Your task to perform on an android device: toggle notification dots Image 0: 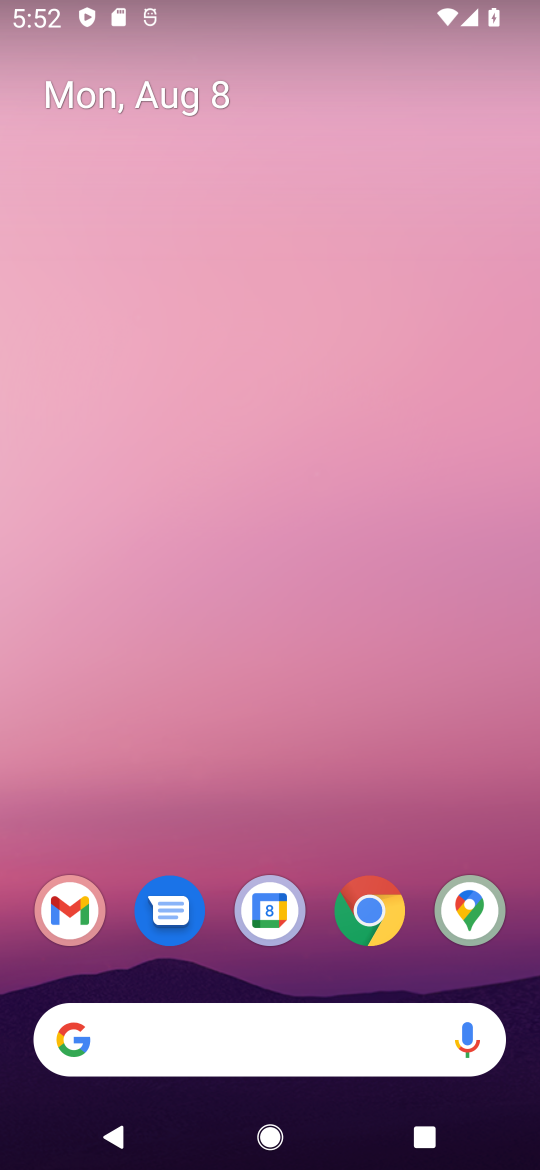
Step 0: drag from (215, 1062) to (247, 210)
Your task to perform on an android device: toggle notification dots Image 1: 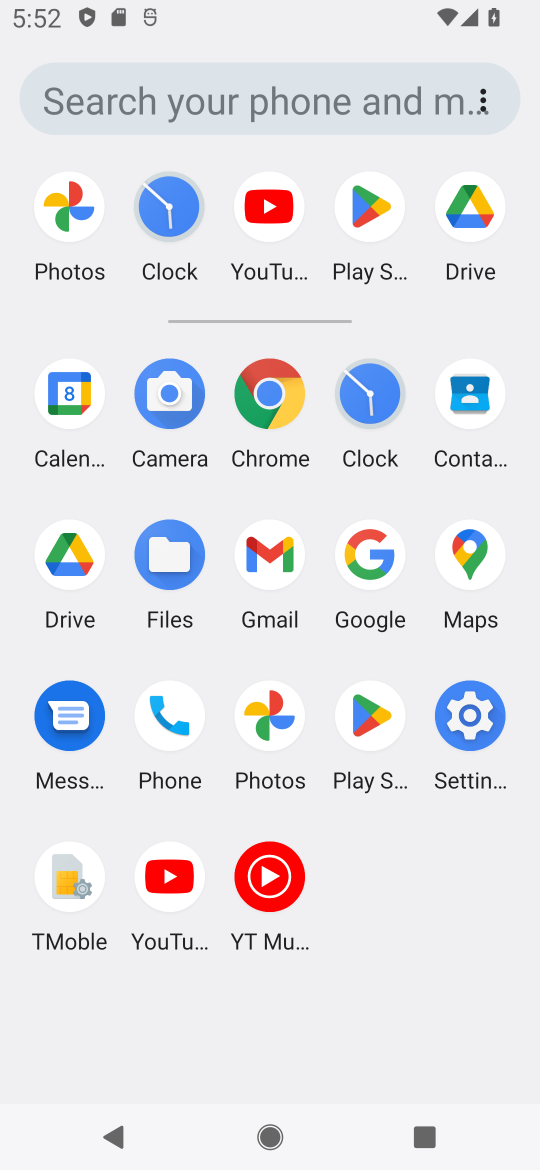
Step 1: click (470, 714)
Your task to perform on an android device: toggle notification dots Image 2: 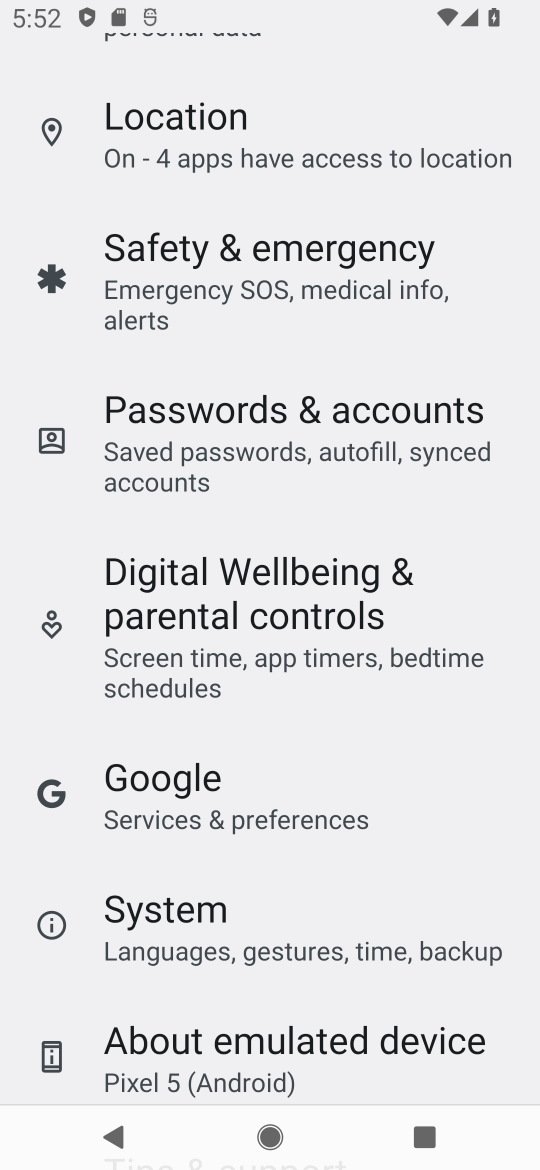
Step 2: drag from (377, 509) to (385, 630)
Your task to perform on an android device: toggle notification dots Image 3: 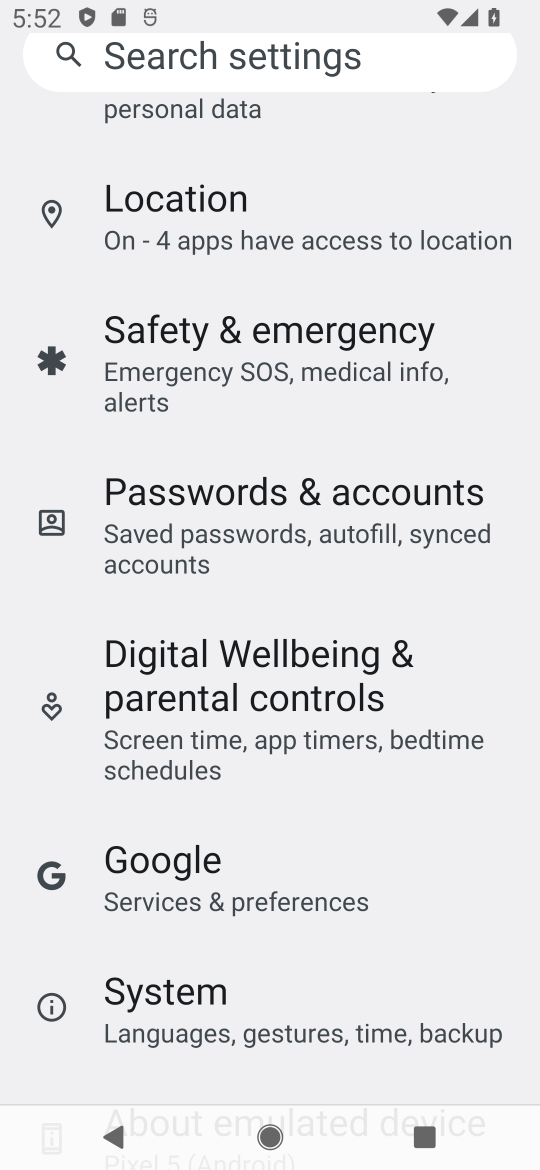
Step 3: drag from (362, 435) to (386, 601)
Your task to perform on an android device: toggle notification dots Image 4: 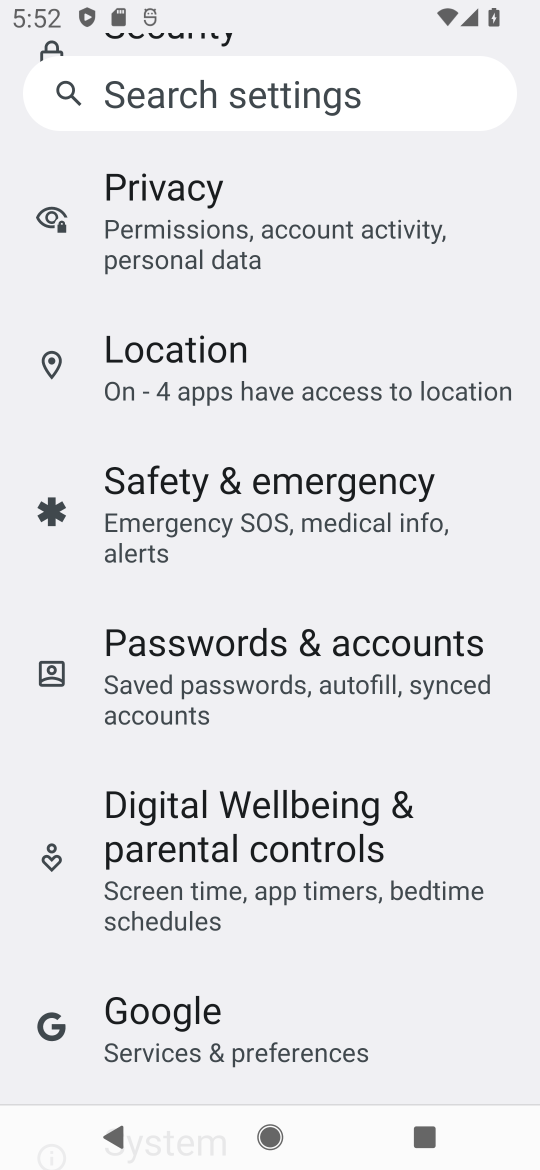
Step 4: drag from (329, 425) to (388, 621)
Your task to perform on an android device: toggle notification dots Image 5: 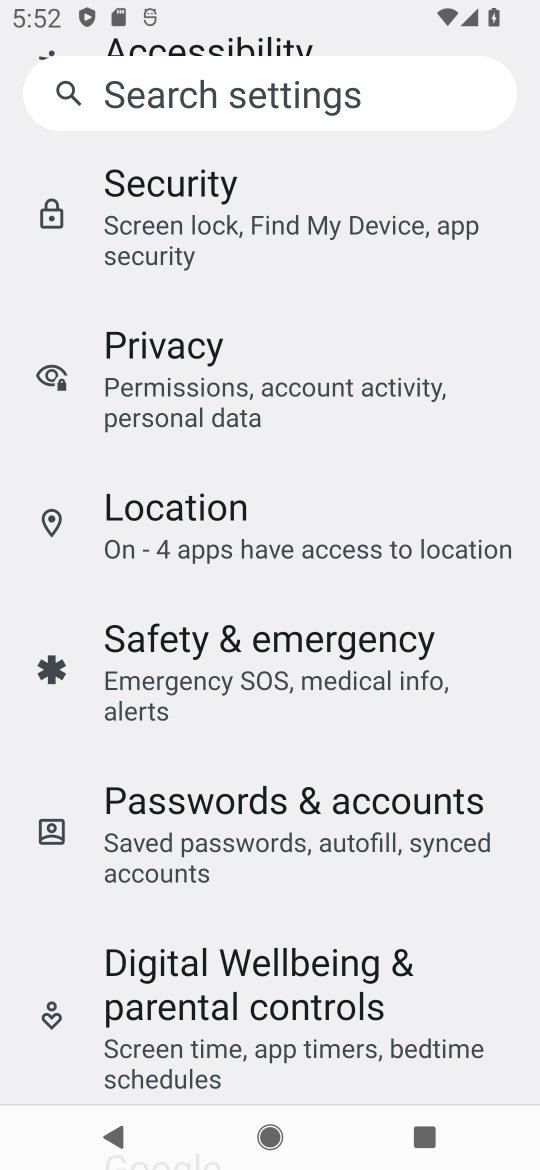
Step 5: drag from (262, 463) to (316, 703)
Your task to perform on an android device: toggle notification dots Image 6: 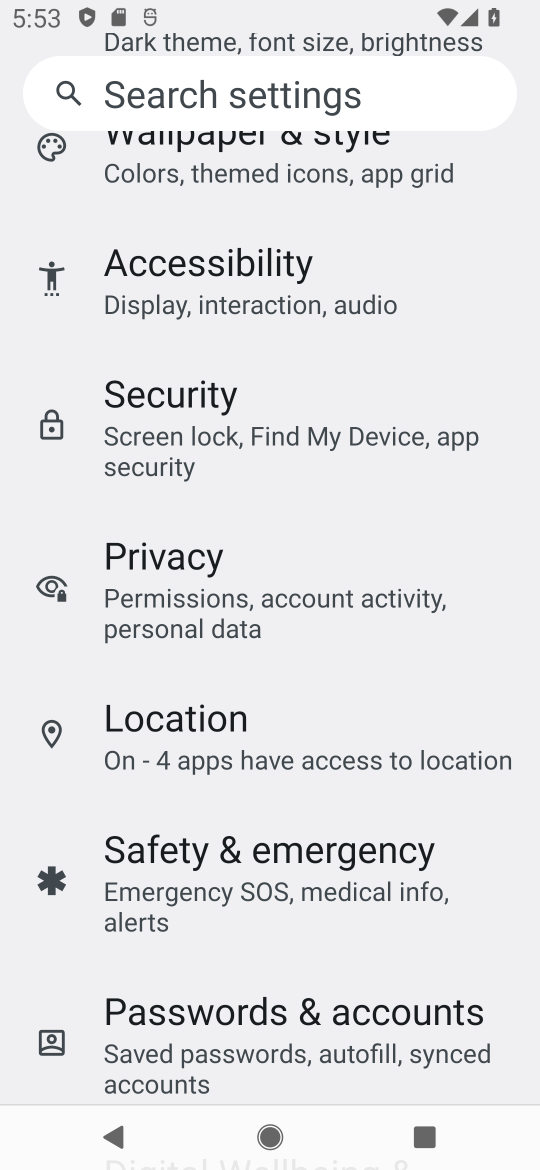
Step 6: drag from (250, 498) to (314, 681)
Your task to perform on an android device: toggle notification dots Image 7: 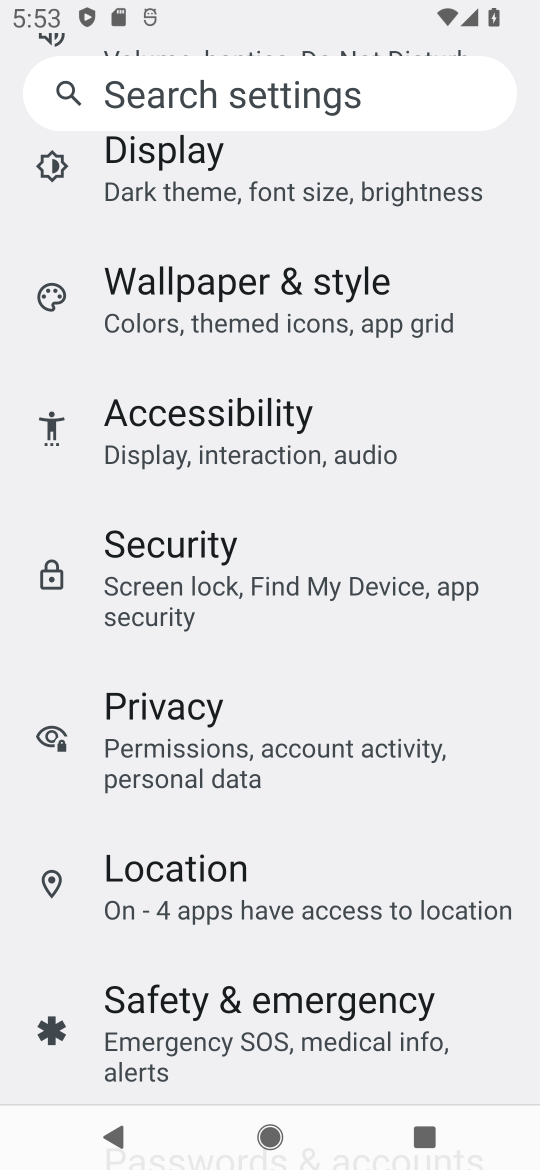
Step 7: drag from (274, 512) to (344, 708)
Your task to perform on an android device: toggle notification dots Image 8: 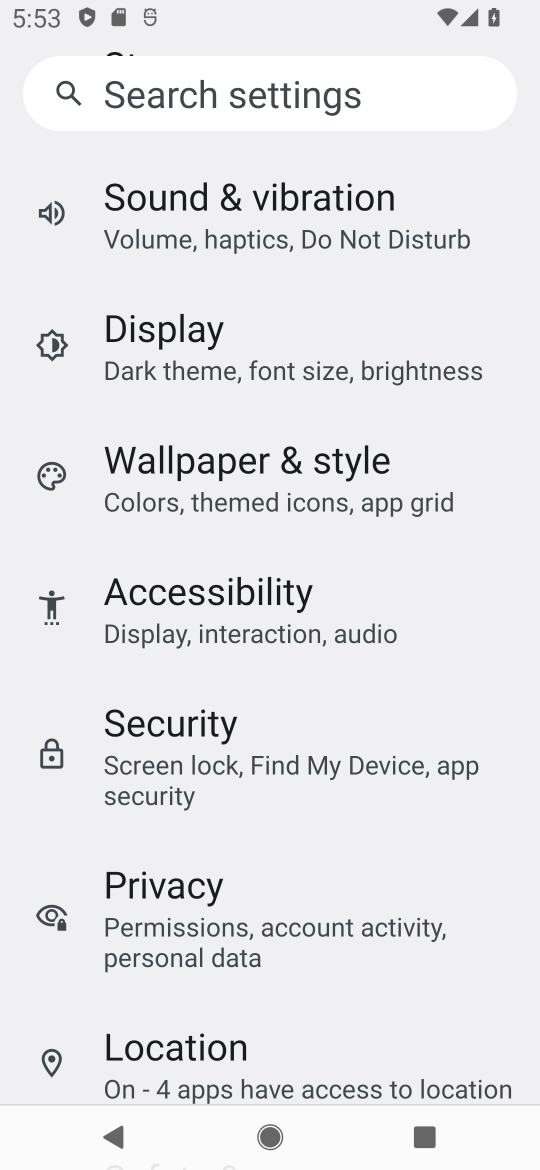
Step 8: drag from (270, 534) to (325, 741)
Your task to perform on an android device: toggle notification dots Image 9: 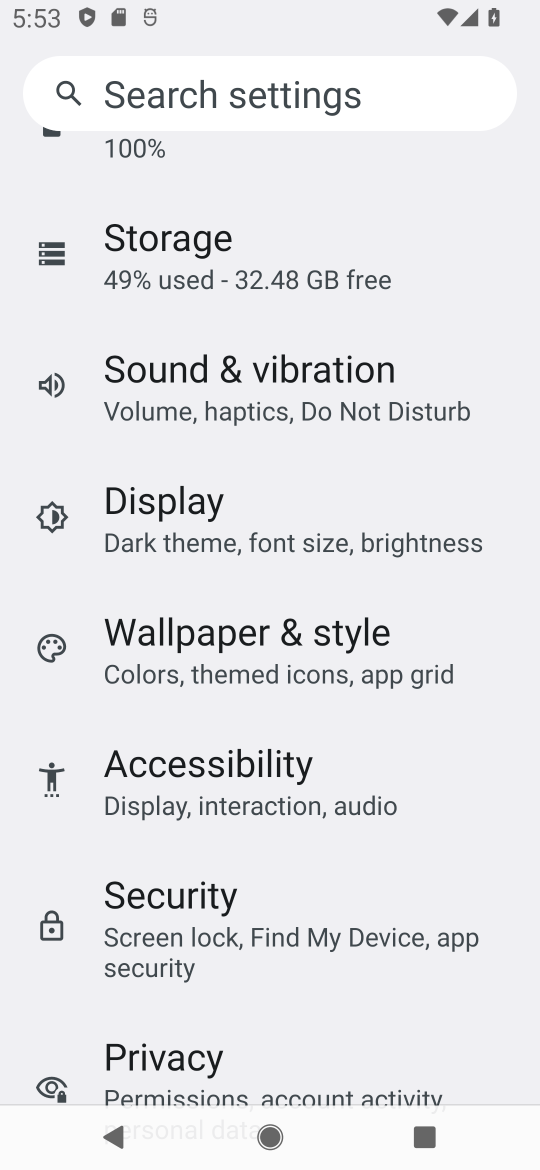
Step 9: drag from (277, 473) to (336, 708)
Your task to perform on an android device: toggle notification dots Image 10: 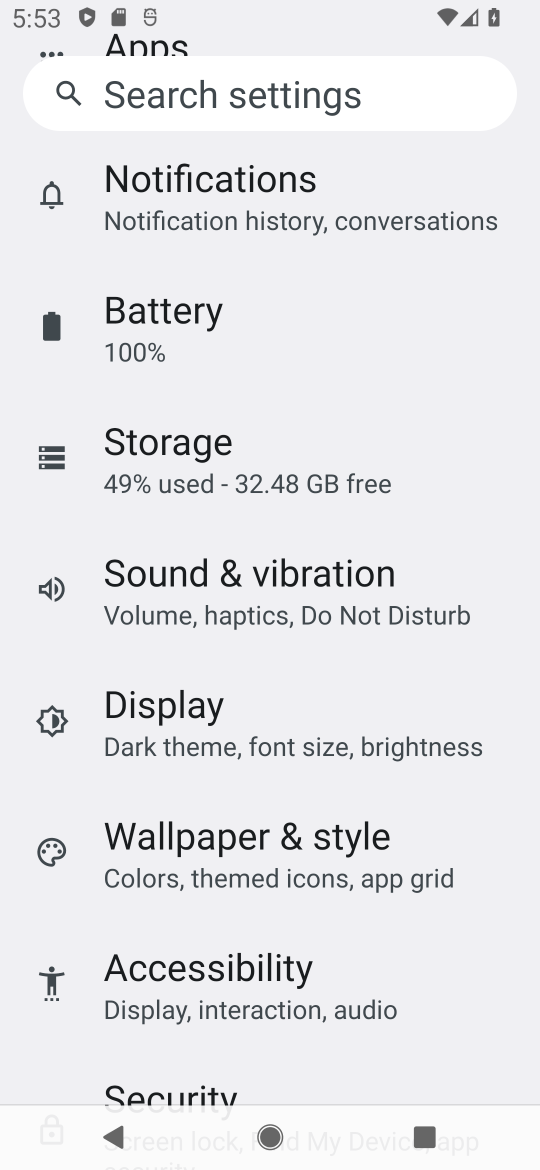
Step 10: drag from (246, 386) to (329, 585)
Your task to perform on an android device: toggle notification dots Image 11: 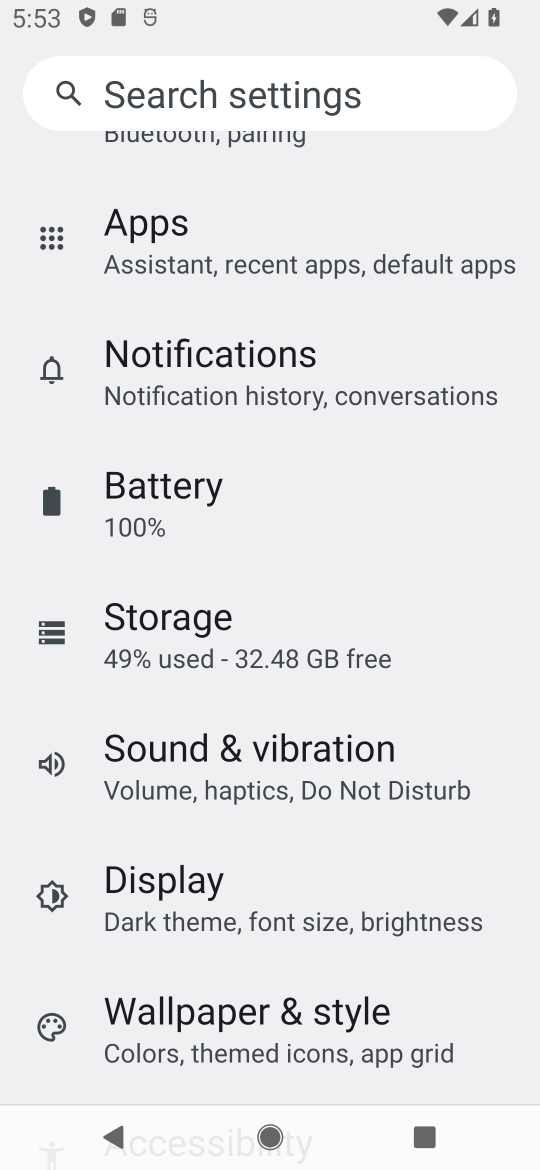
Step 11: click (237, 370)
Your task to perform on an android device: toggle notification dots Image 12: 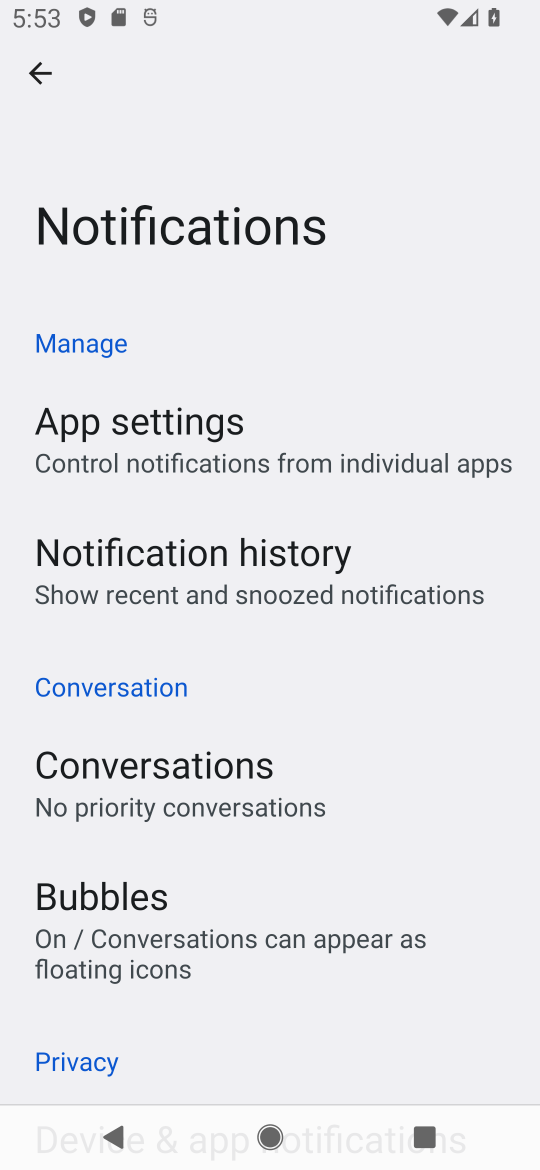
Step 12: drag from (193, 848) to (245, 678)
Your task to perform on an android device: toggle notification dots Image 13: 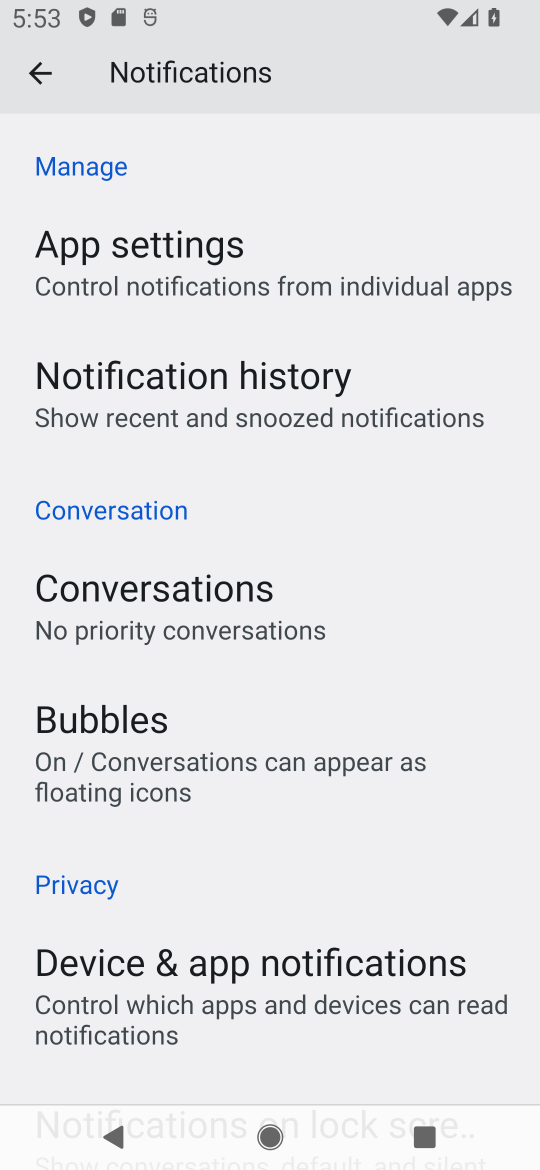
Step 13: drag from (205, 930) to (283, 777)
Your task to perform on an android device: toggle notification dots Image 14: 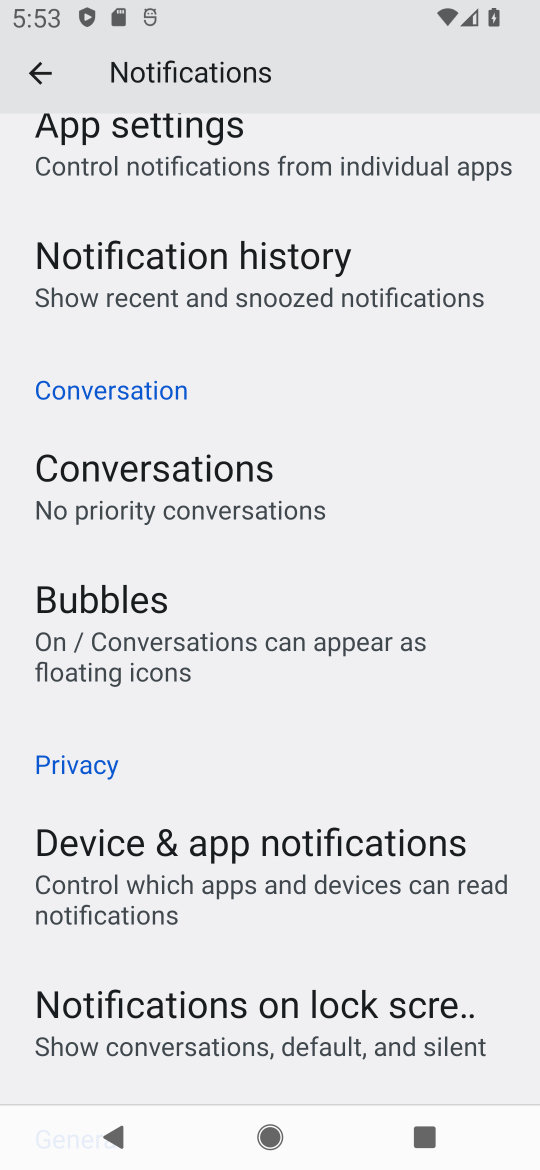
Step 14: drag from (238, 958) to (350, 791)
Your task to perform on an android device: toggle notification dots Image 15: 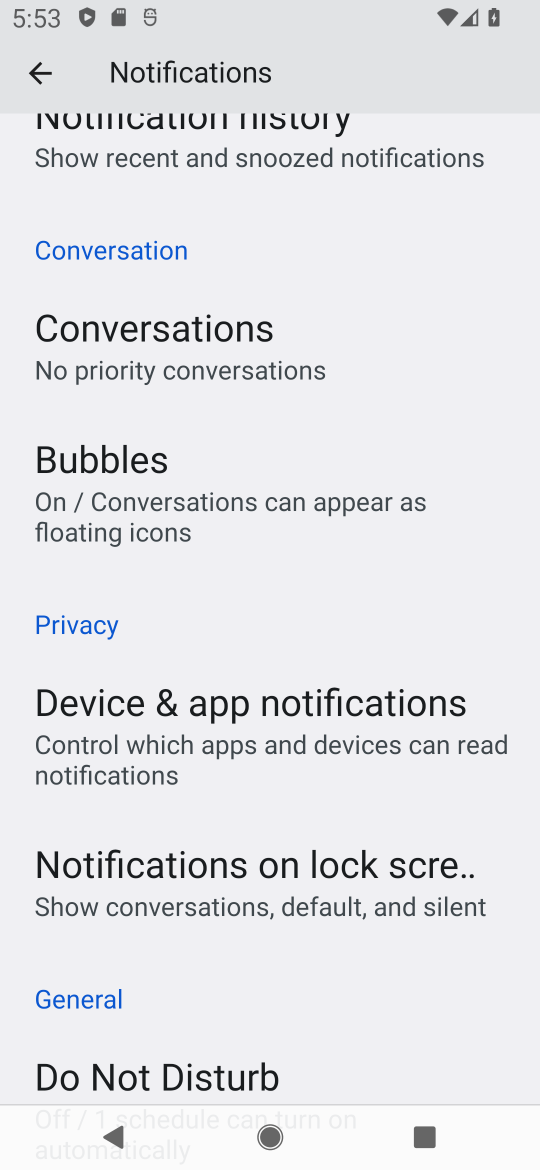
Step 15: drag from (260, 991) to (393, 781)
Your task to perform on an android device: toggle notification dots Image 16: 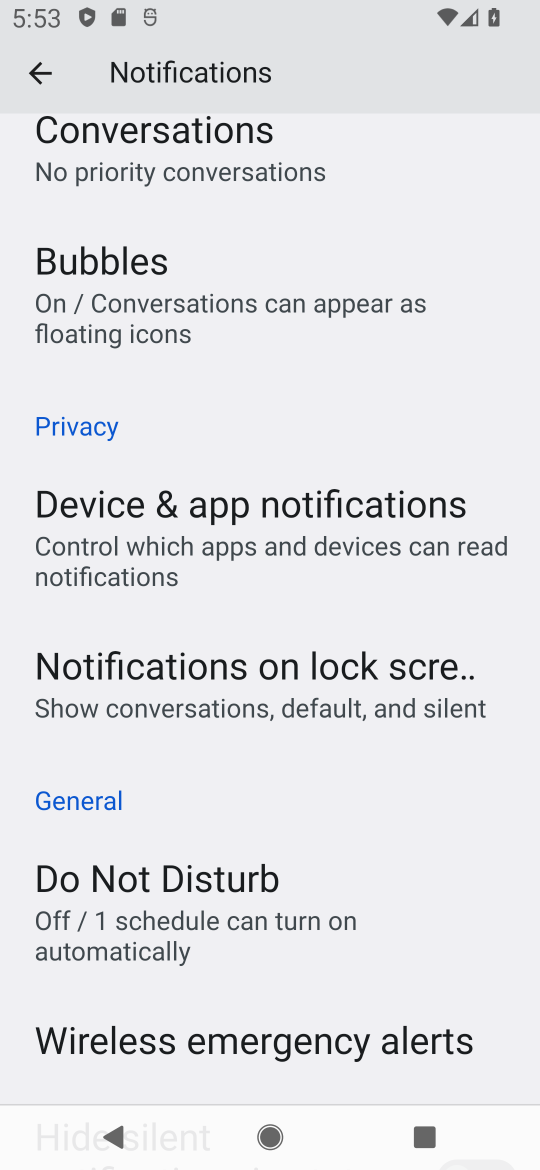
Step 16: drag from (256, 973) to (357, 791)
Your task to perform on an android device: toggle notification dots Image 17: 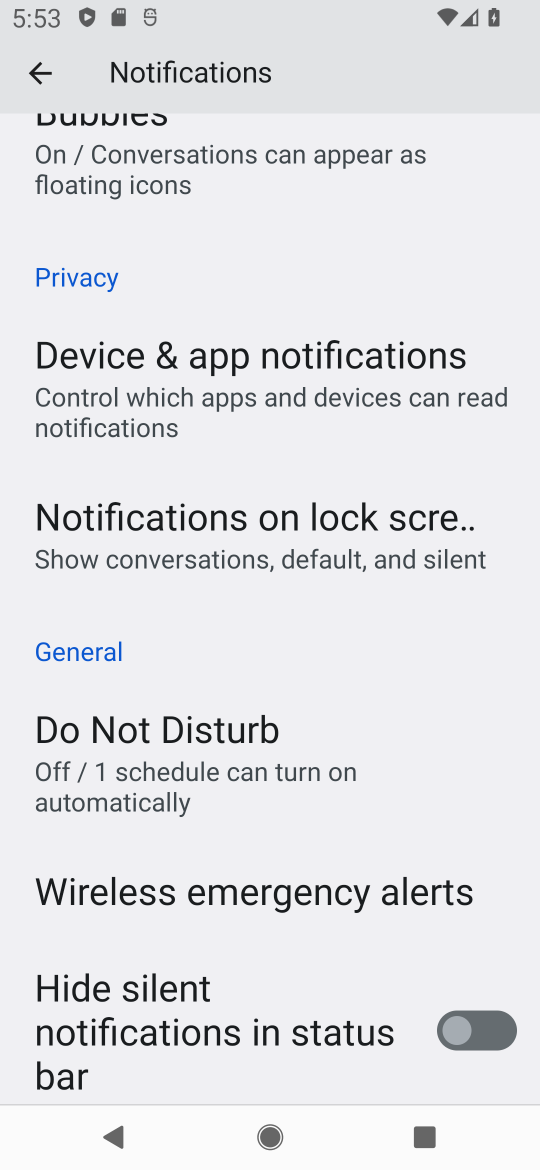
Step 17: drag from (198, 926) to (286, 724)
Your task to perform on an android device: toggle notification dots Image 18: 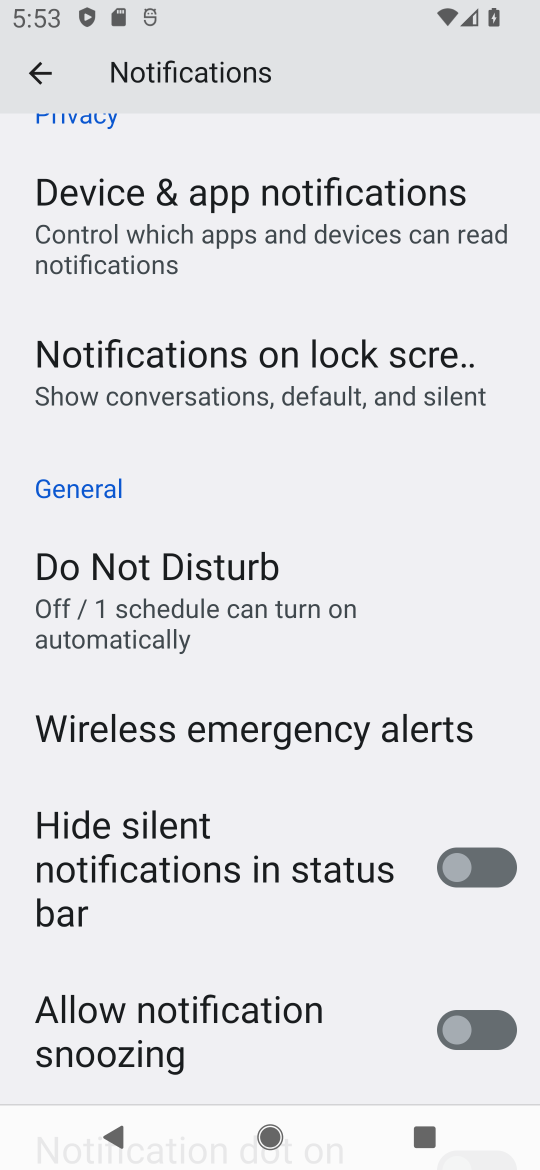
Step 18: drag from (186, 937) to (331, 734)
Your task to perform on an android device: toggle notification dots Image 19: 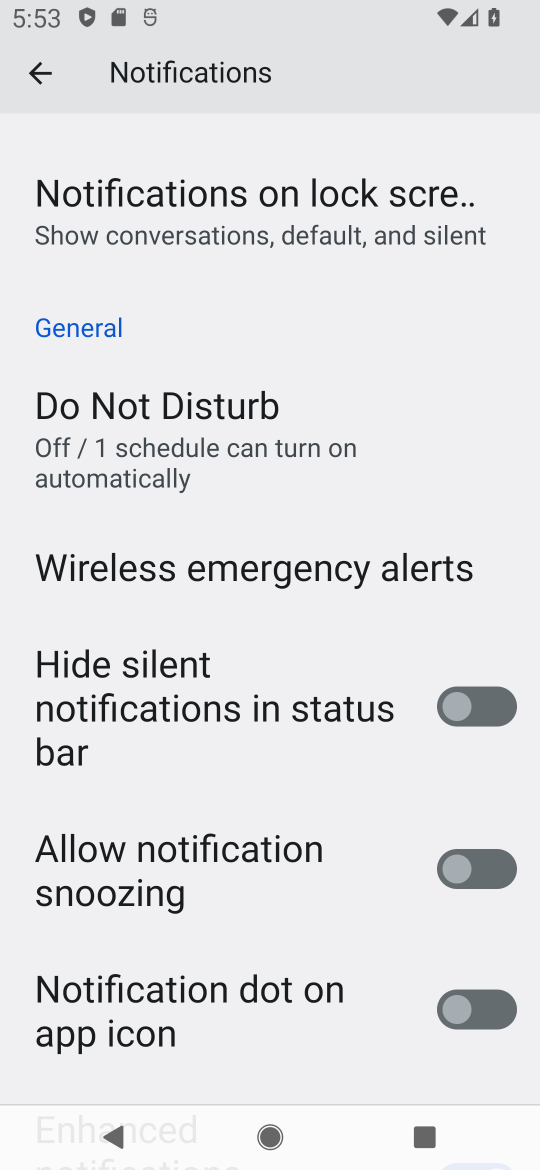
Step 19: click (464, 1018)
Your task to perform on an android device: toggle notification dots Image 20: 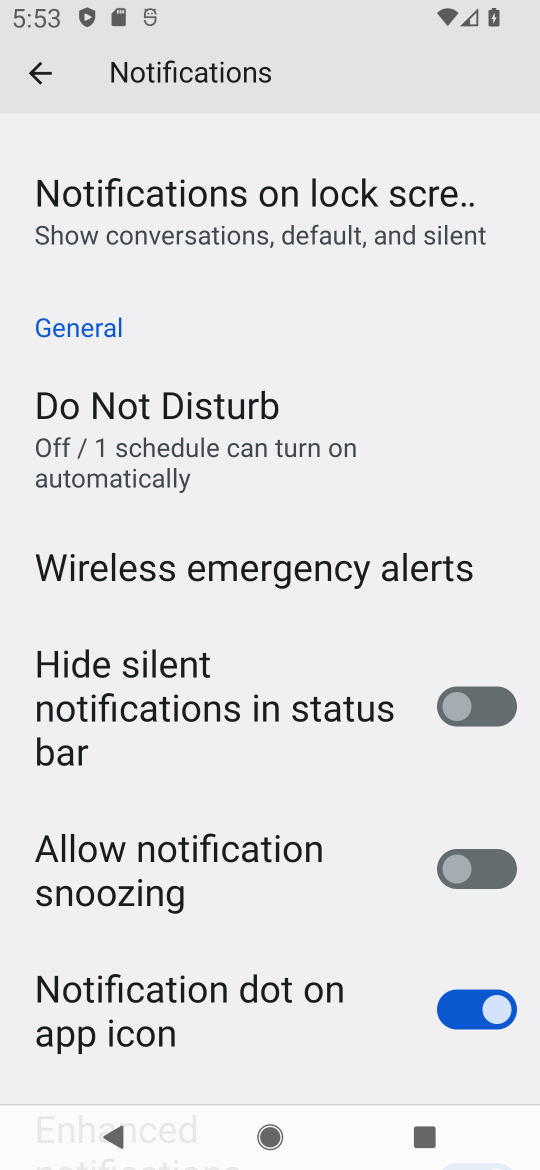
Step 20: task complete